Your task to perform on an android device: Clear the cart on newegg.com. Add usb-a to the cart on newegg.com, then select checkout. Image 0: 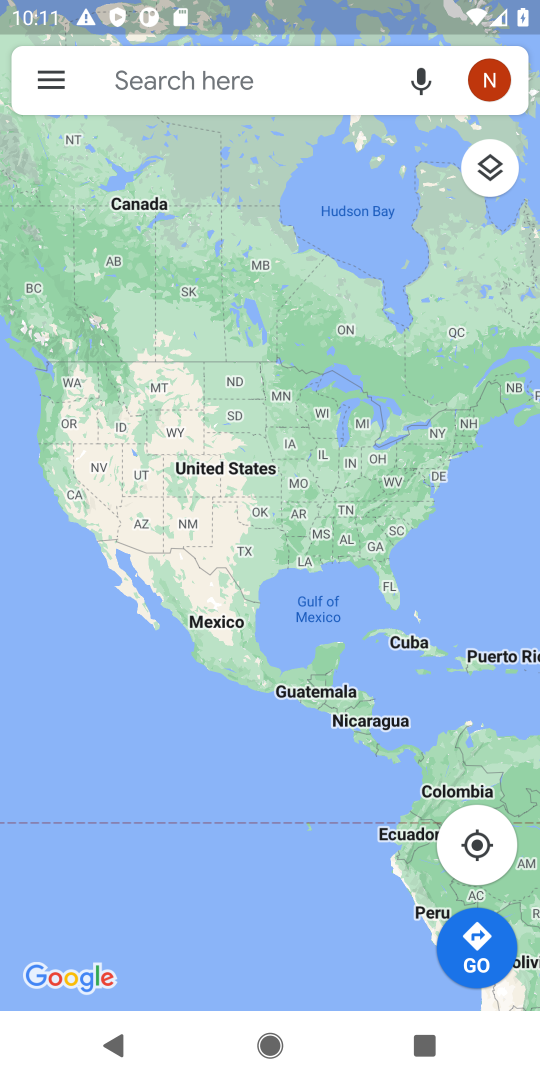
Step 0: press home button
Your task to perform on an android device: Clear the cart on newegg.com. Add usb-a to the cart on newegg.com, then select checkout. Image 1: 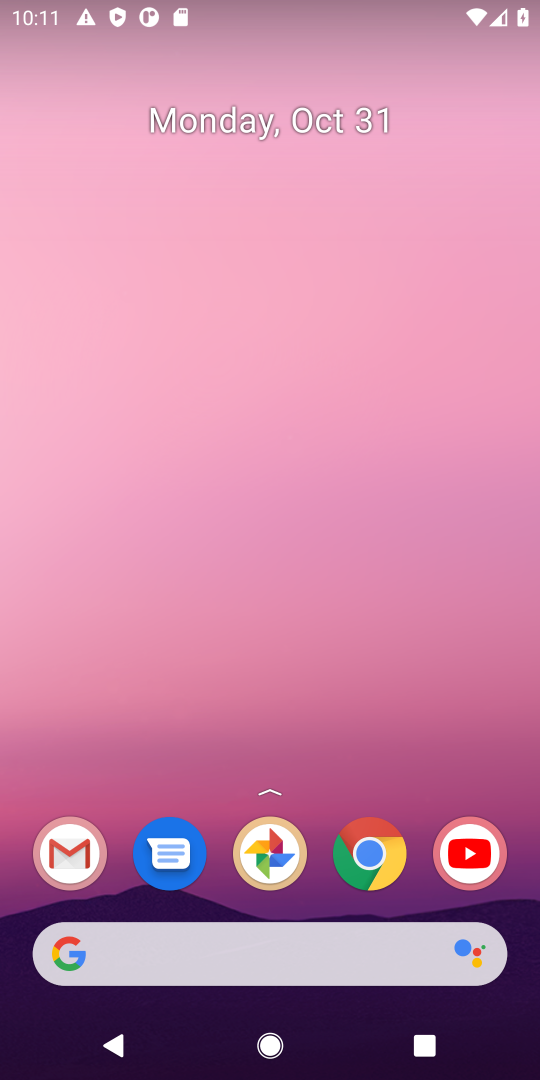
Step 1: click (240, 943)
Your task to perform on an android device: Clear the cart on newegg.com. Add usb-a to the cart on newegg.com, then select checkout. Image 2: 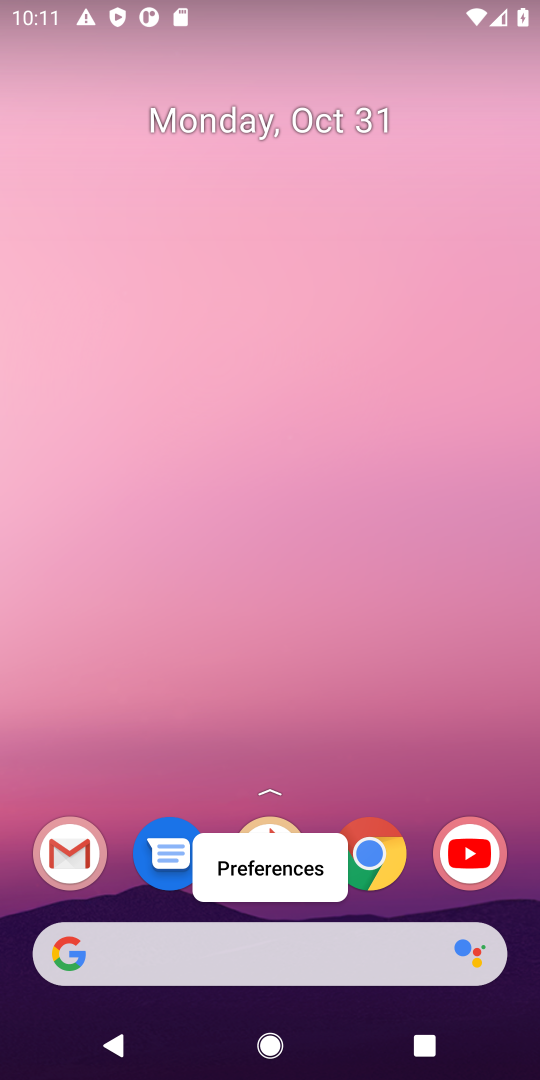
Step 2: click (240, 943)
Your task to perform on an android device: Clear the cart on newegg.com. Add usb-a to the cart on newegg.com, then select checkout. Image 3: 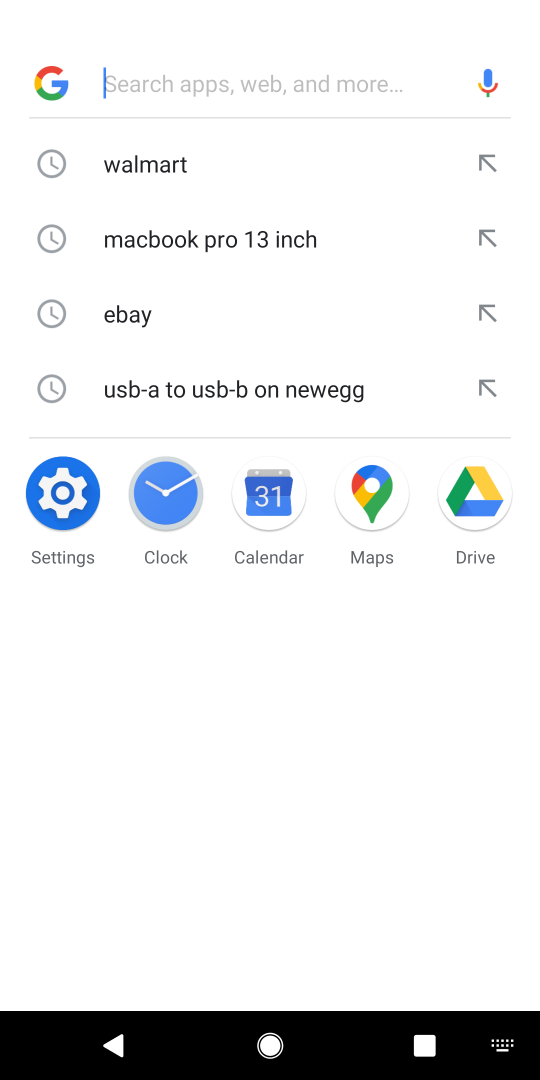
Step 3: type "newegg.com"
Your task to perform on an android device: Clear the cart on newegg.com. Add usb-a to the cart on newegg.com, then select checkout. Image 4: 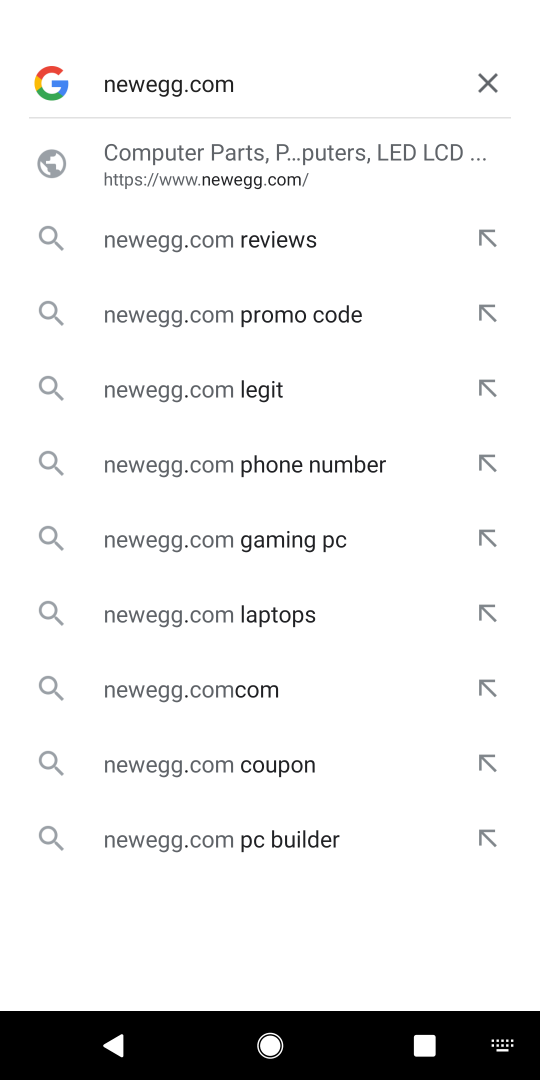
Step 4: type ""
Your task to perform on an android device: Clear the cart on newegg.com. Add usb-a to the cart on newegg.com, then select checkout. Image 5: 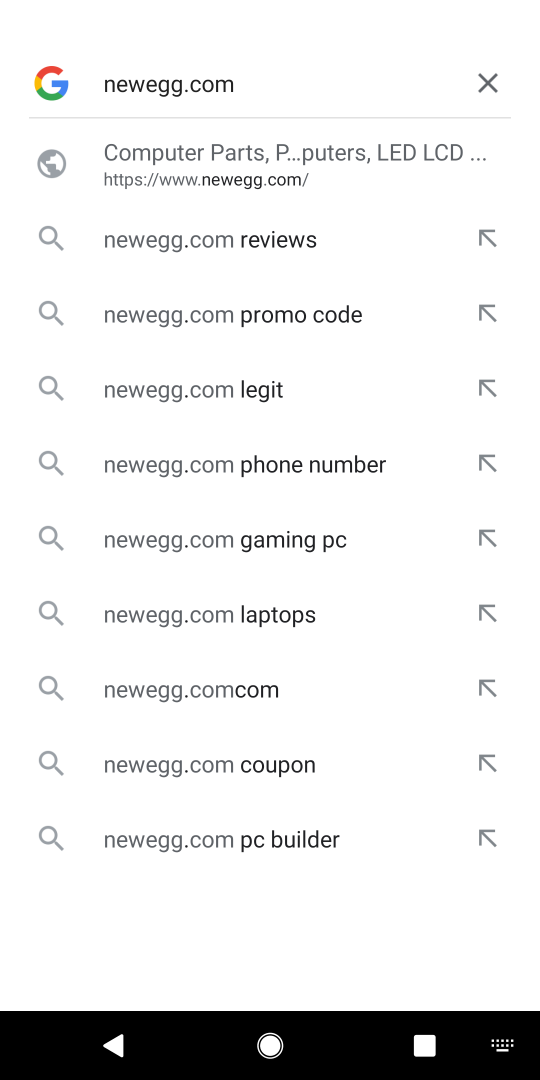
Step 5: press enter
Your task to perform on an android device: Clear the cart on newegg.com. Add usb-a to the cart on newegg.com, then select checkout. Image 6: 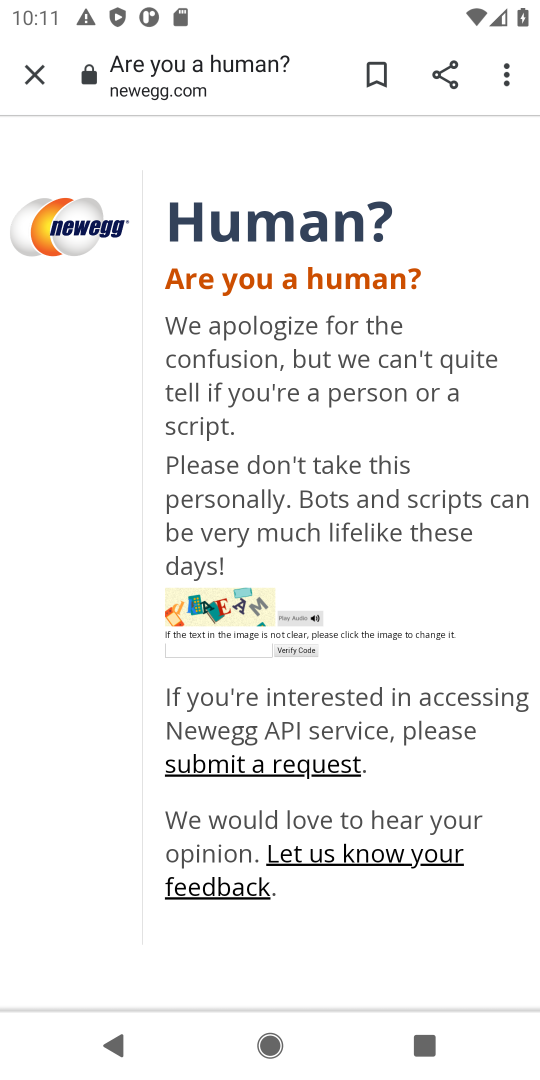
Step 6: task complete